Your task to perform on an android device: turn vacation reply on in the gmail app Image 0: 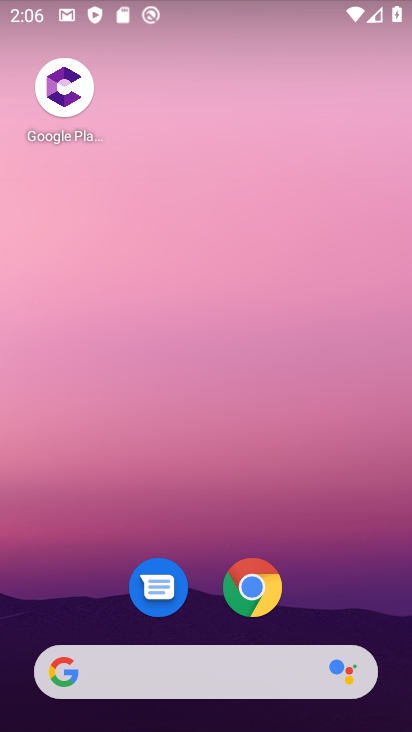
Step 0: drag from (309, 488) to (303, 28)
Your task to perform on an android device: turn vacation reply on in the gmail app Image 1: 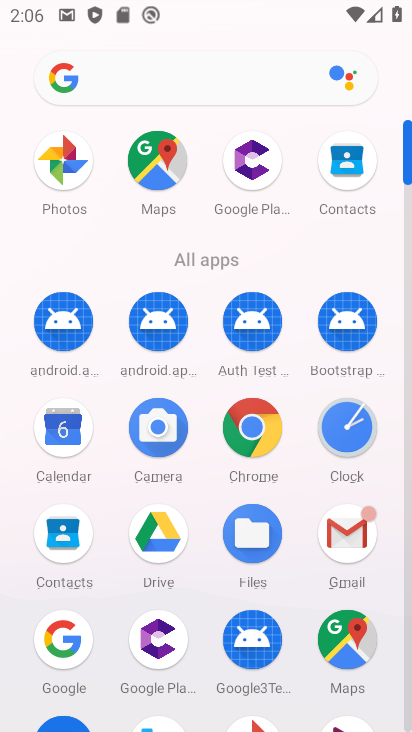
Step 1: click (340, 536)
Your task to perform on an android device: turn vacation reply on in the gmail app Image 2: 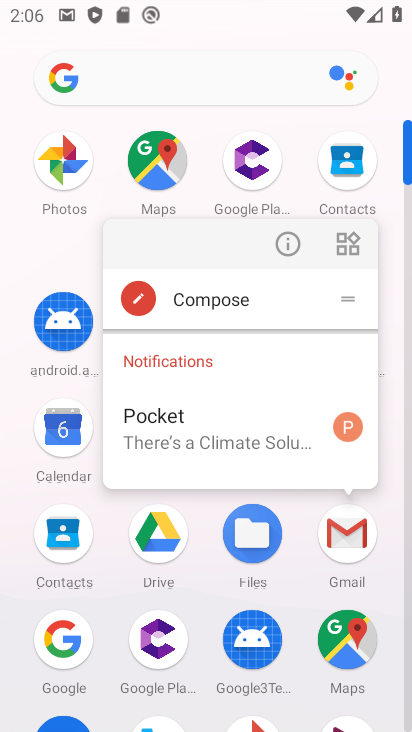
Step 2: click (343, 527)
Your task to perform on an android device: turn vacation reply on in the gmail app Image 3: 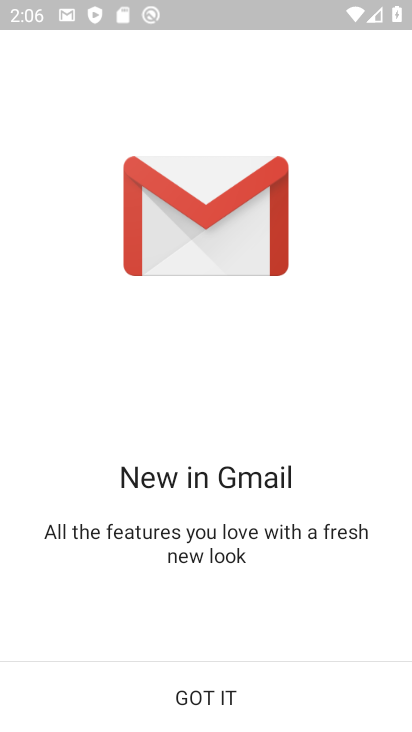
Step 3: click (212, 694)
Your task to perform on an android device: turn vacation reply on in the gmail app Image 4: 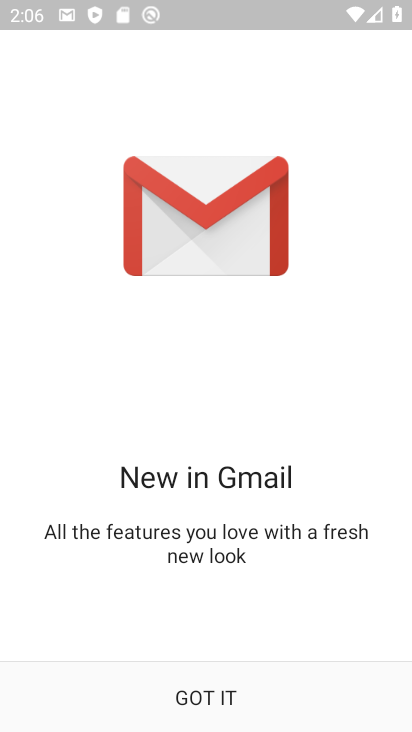
Step 4: click (223, 691)
Your task to perform on an android device: turn vacation reply on in the gmail app Image 5: 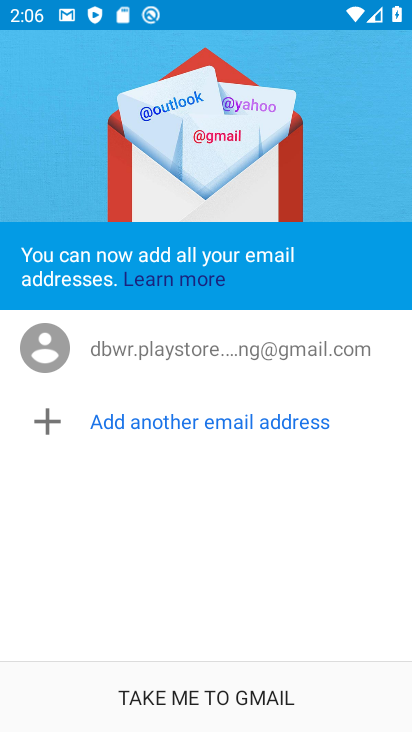
Step 5: click (223, 691)
Your task to perform on an android device: turn vacation reply on in the gmail app Image 6: 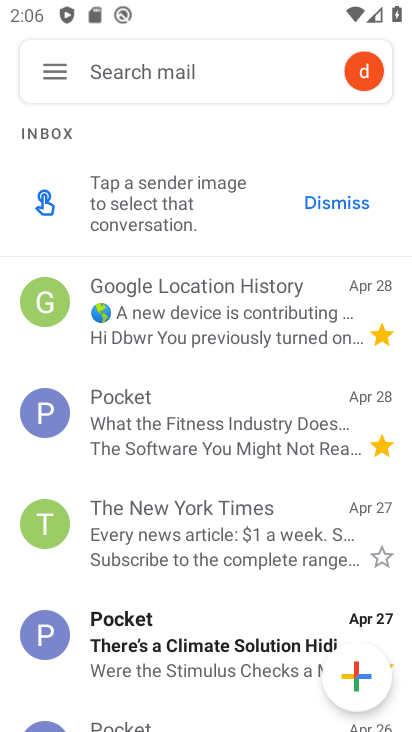
Step 6: click (52, 66)
Your task to perform on an android device: turn vacation reply on in the gmail app Image 7: 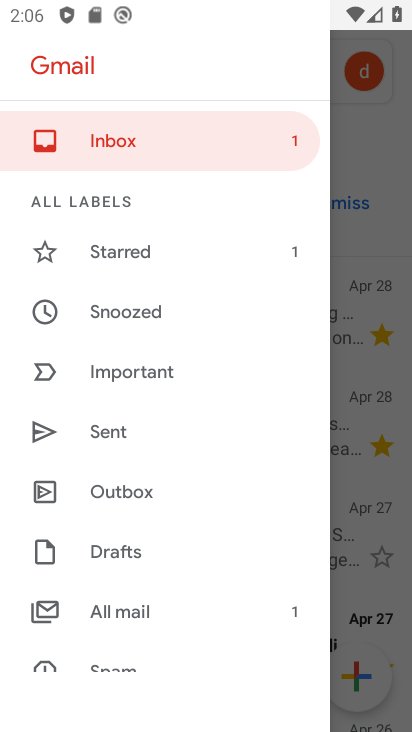
Step 7: drag from (171, 554) to (231, 37)
Your task to perform on an android device: turn vacation reply on in the gmail app Image 8: 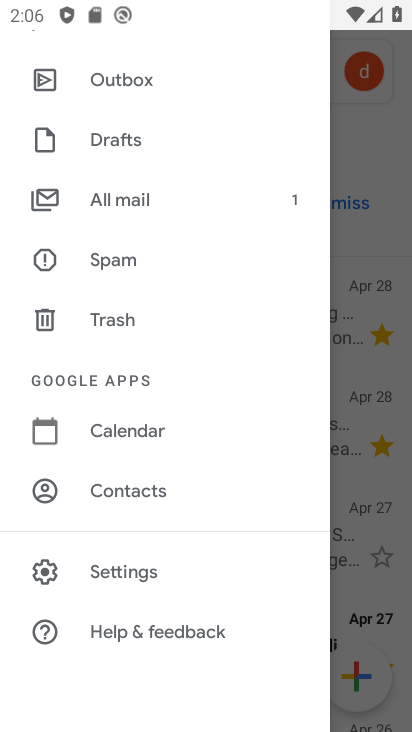
Step 8: click (155, 569)
Your task to perform on an android device: turn vacation reply on in the gmail app Image 9: 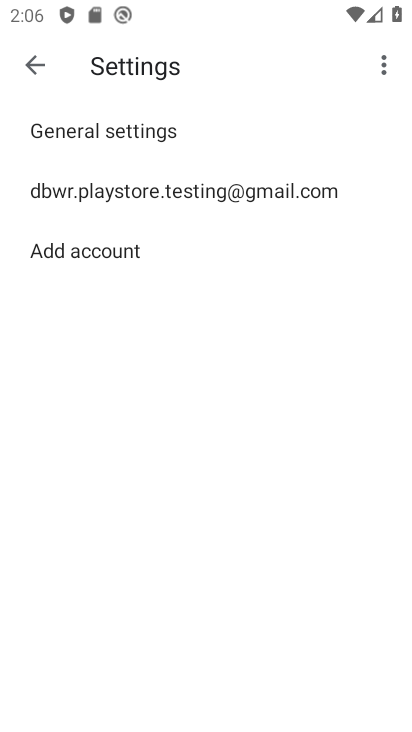
Step 9: click (170, 183)
Your task to perform on an android device: turn vacation reply on in the gmail app Image 10: 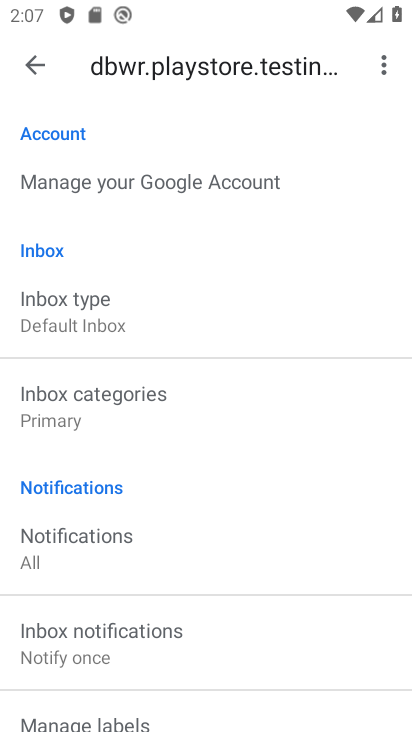
Step 10: drag from (222, 631) to (269, 120)
Your task to perform on an android device: turn vacation reply on in the gmail app Image 11: 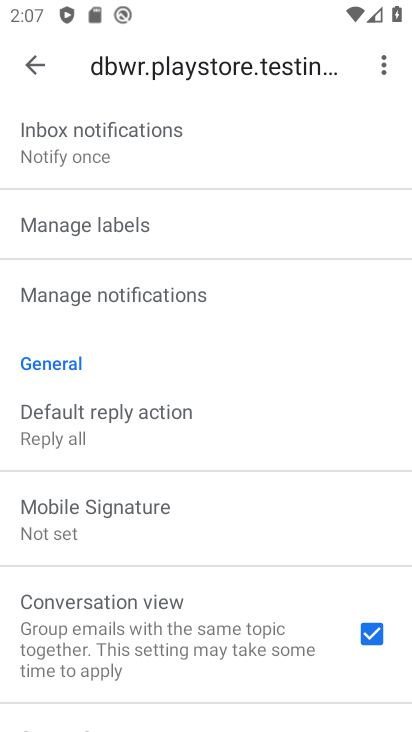
Step 11: drag from (222, 616) to (249, 106)
Your task to perform on an android device: turn vacation reply on in the gmail app Image 12: 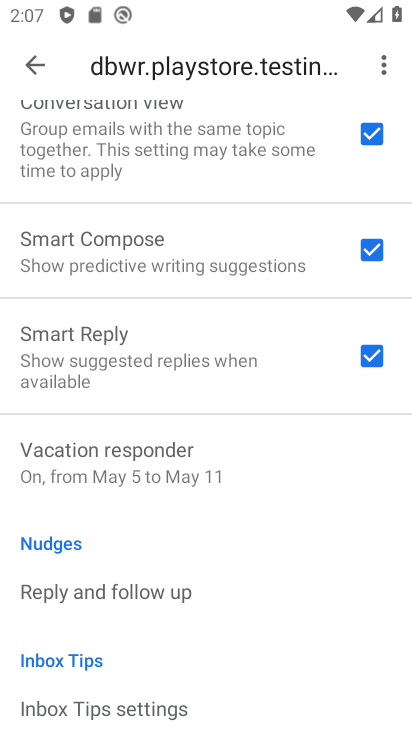
Step 12: click (201, 465)
Your task to perform on an android device: turn vacation reply on in the gmail app Image 13: 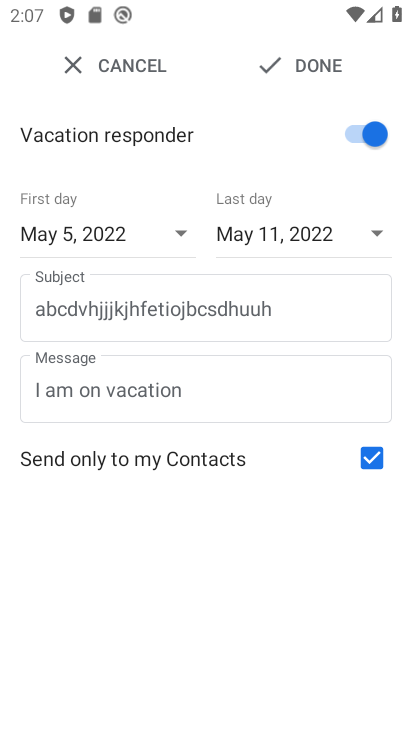
Step 13: task complete